Your task to perform on an android device: Open Chrome and go to settings Image 0: 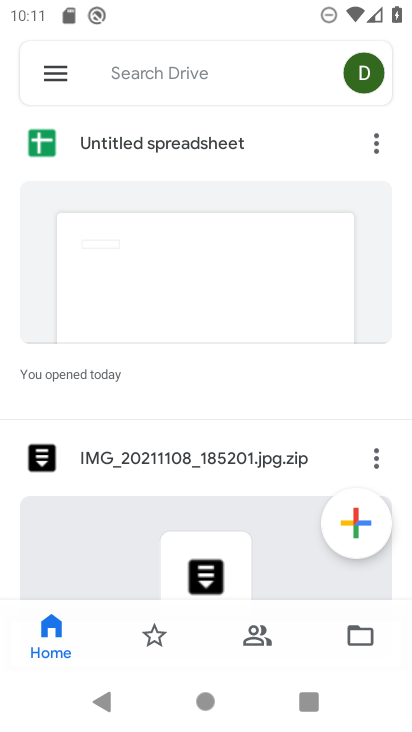
Step 0: press home button
Your task to perform on an android device: Open Chrome and go to settings Image 1: 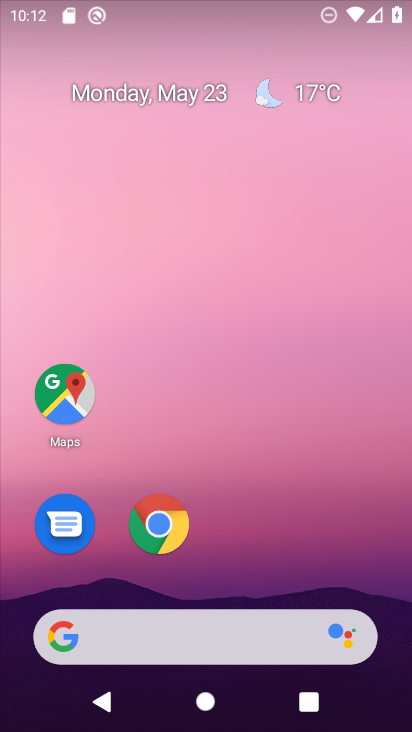
Step 1: click (158, 541)
Your task to perform on an android device: Open Chrome and go to settings Image 2: 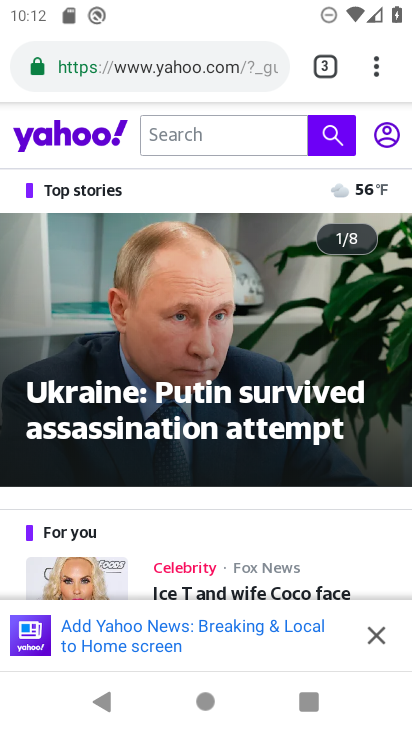
Step 2: click (376, 68)
Your task to perform on an android device: Open Chrome and go to settings Image 3: 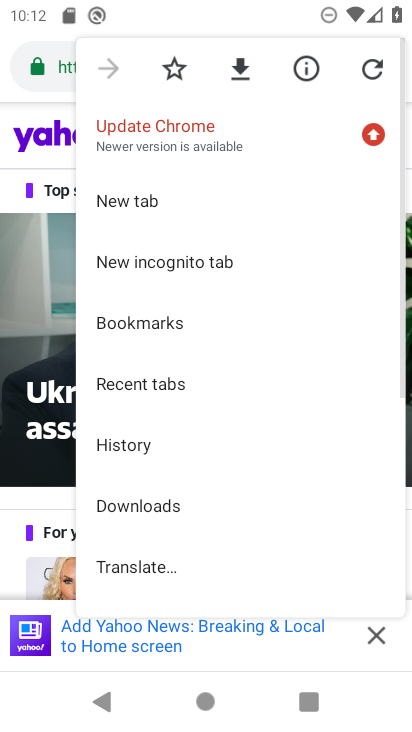
Step 3: drag from (166, 548) to (211, 291)
Your task to perform on an android device: Open Chrome and go to settings Image 4: 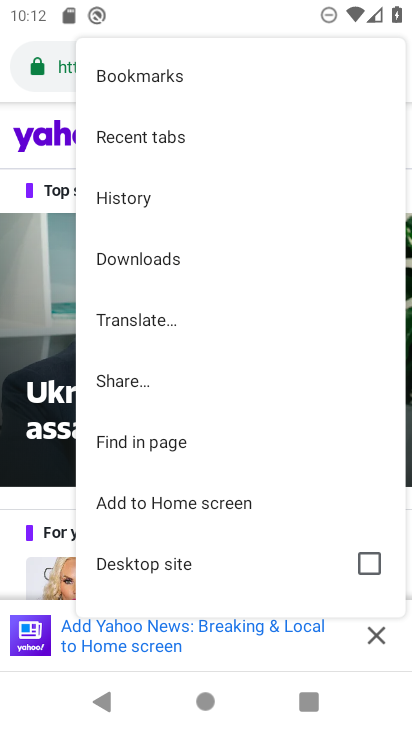
Step 4: drag from (162, 558) to (172, 273)
Your task to perform on an android device: Open Chrome and go to settings Image 5: 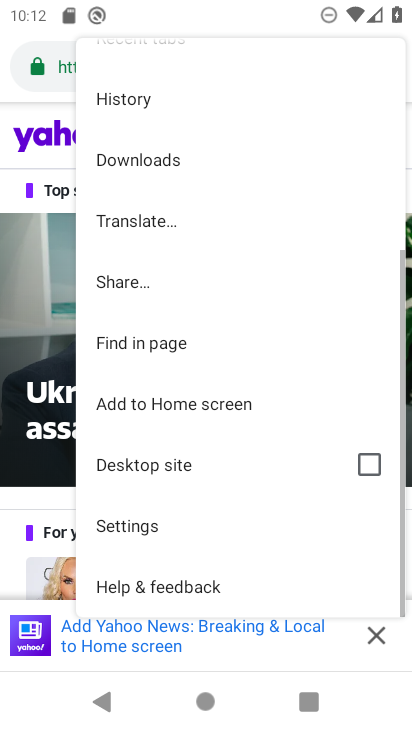
Step 5: click (144, 510)
Your task to perform on an android device: Open Chrome and go to settings Image 6: 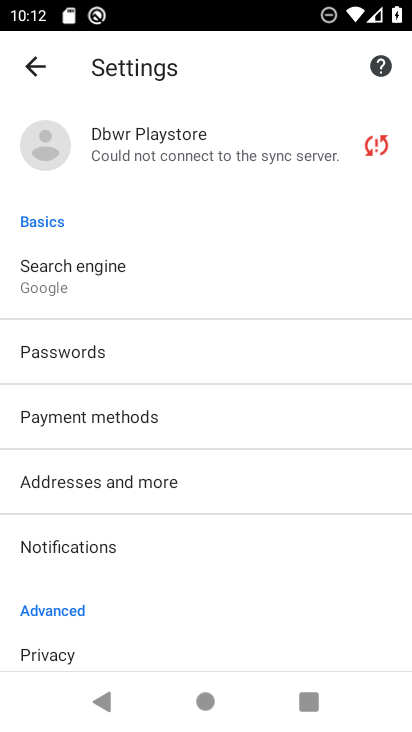
Step 6: task complete